Your task to perform on an android device: change notifications settings Image 0: 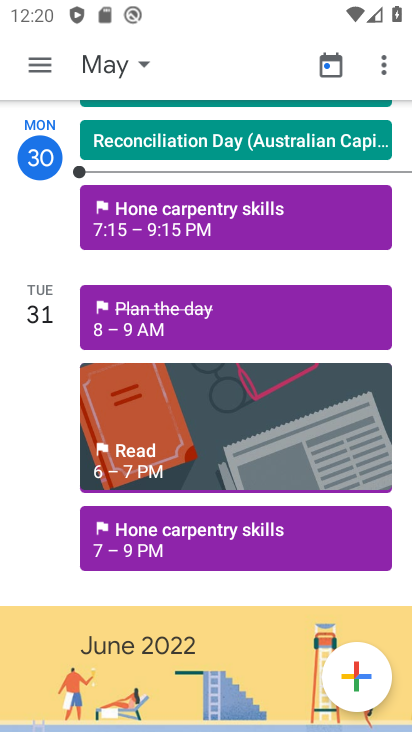
Step 0: press home button
Your task to perform on an android device: change notifications settings Image 1: 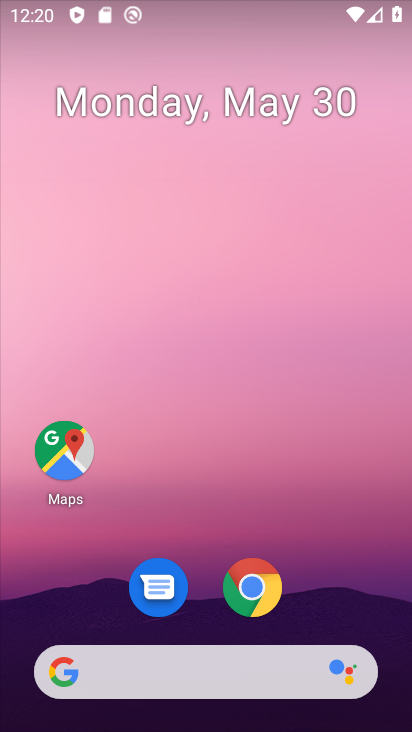
Step 1: drag from (194, 610) to (235, 99)
Your task to perform on an android device: change notifications settings Image 2: 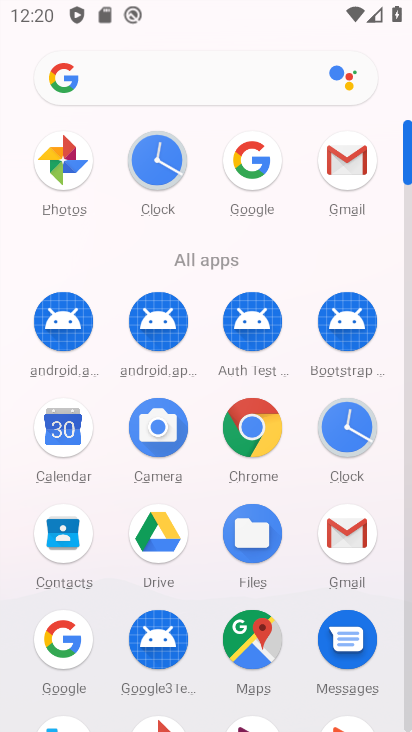
Step 2: drag from (202, 570) to (195, 195)
Your task to perform on an android device: change notifications settings Image 3: 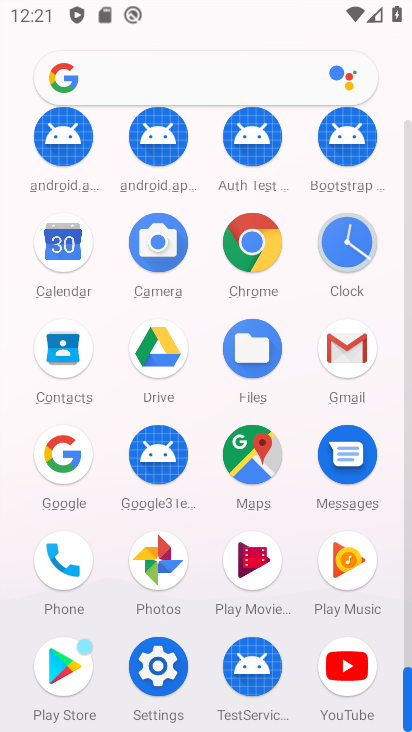
Step 3: click (162, 646)
Your task to perform on an android device: change notifications settings Image 4: 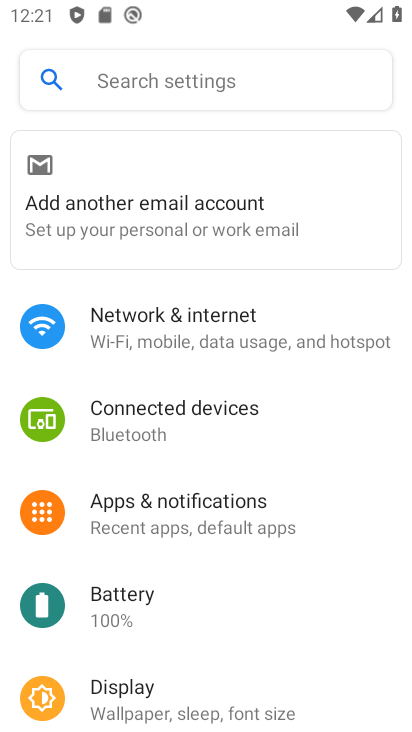
Step 4: drag from (226, 615) to (216, 486)
Your task to perform on an android device: change notifications settings Image 5: 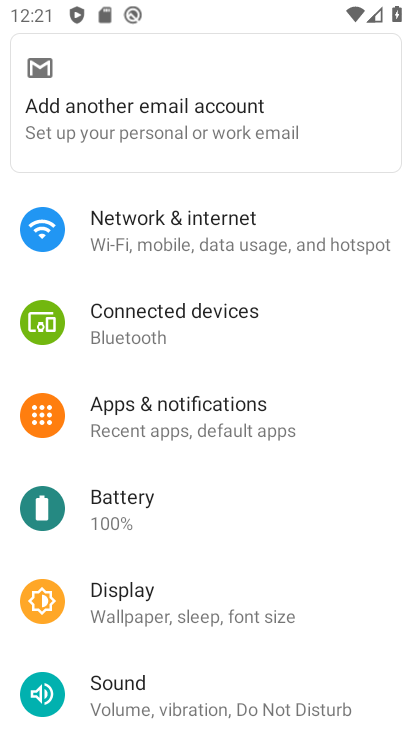
Step 5: click (170, 408)
Your task to perform on an android device: change notifications settings Image 6: 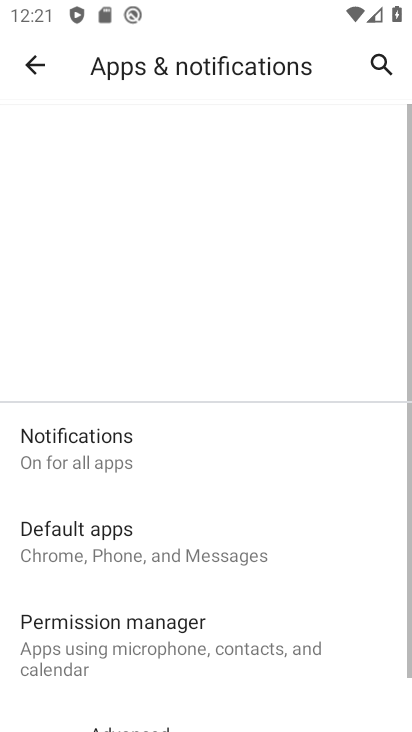
Step 6: click (95, 446)
Your task to perform on an android device: change notifications settings Image 7: 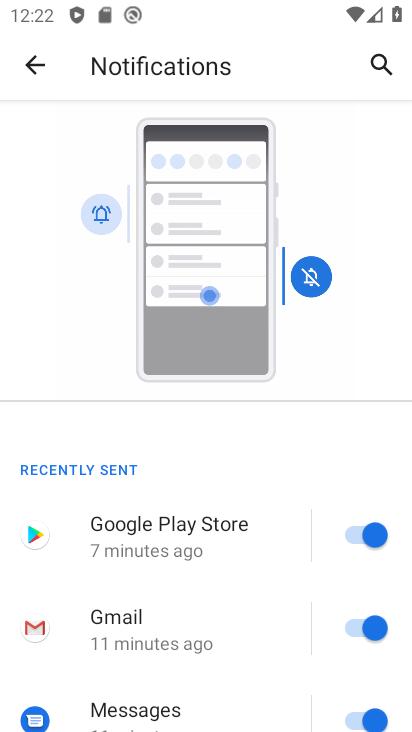
Step 7: task complete